Your task to perform on an android device: check data usage Image 0: 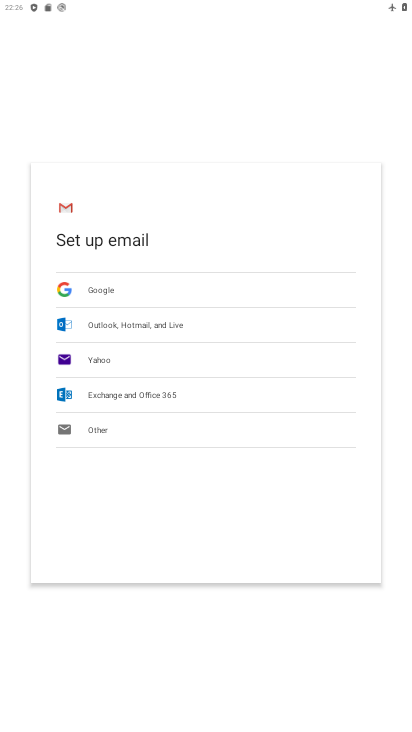
Step 0: press home button
Your task to perform on an android device: check data usage Image 1: 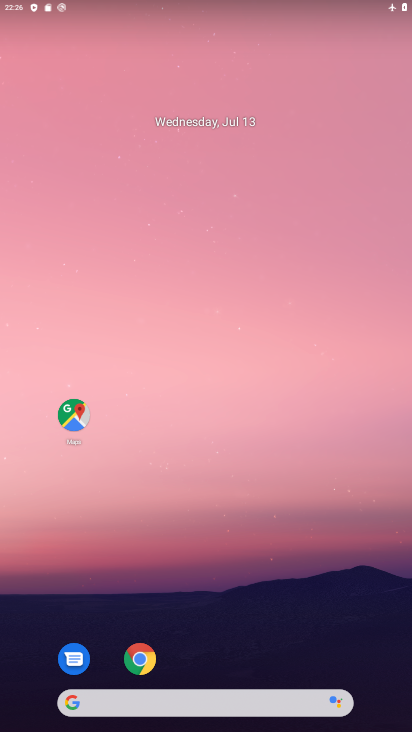
Step 1: drag from (381, 670) to (323, 95)
Your task to perform on an android device: check data usage Image 2: 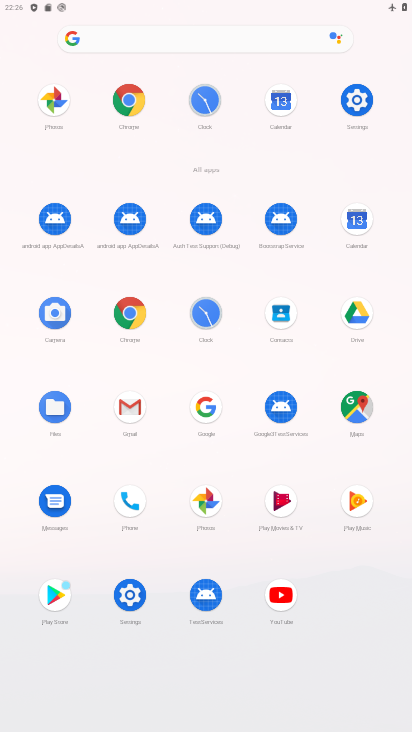
Step 2: click (129, 600)
Your task to perform on an android device: check data usage Image 3: 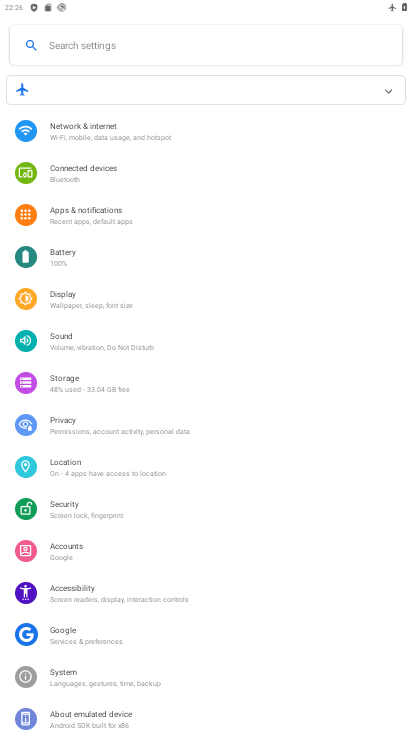
Step 3: click (74, 128)
Your task to perform on an android device: check data usage Image 4: 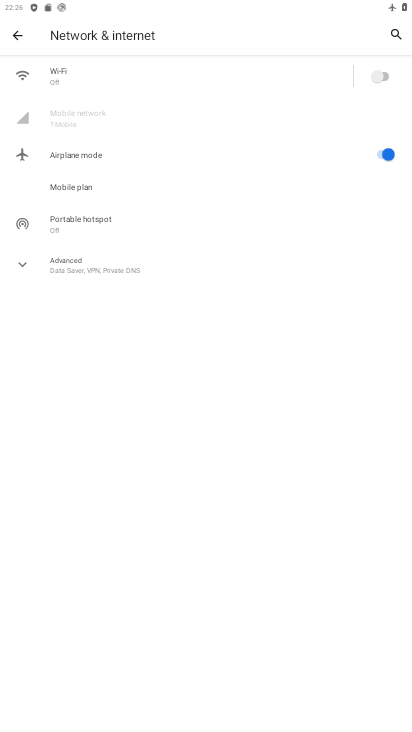
Step 4: task complete